Your task to perform on an android device: open app "DoorDash - Food Delivery" (install if not already installed) Image 0: 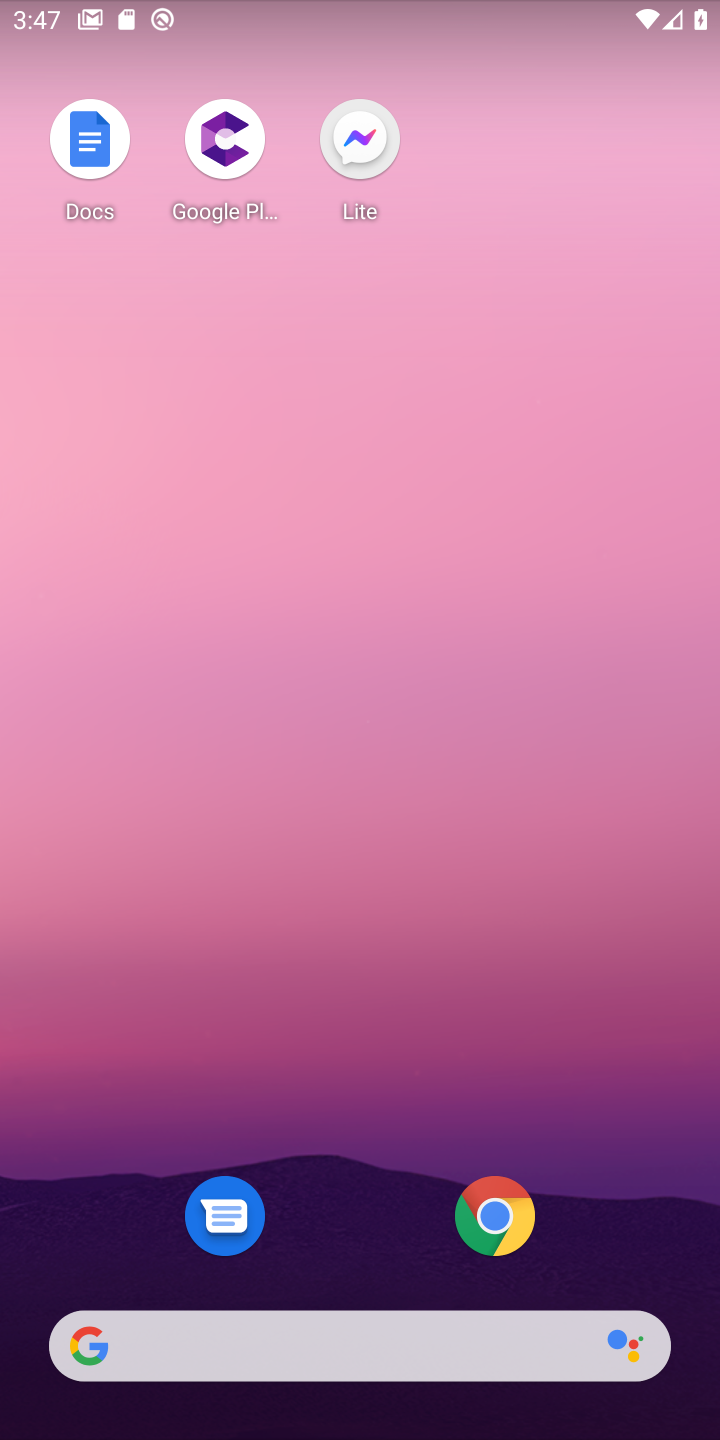
Step 0: drag from (356, 1238) to (282, 82)
Your task to perform on an android device: open app "DoorDash - Food Delivery" (install if not already installed) Image 1: 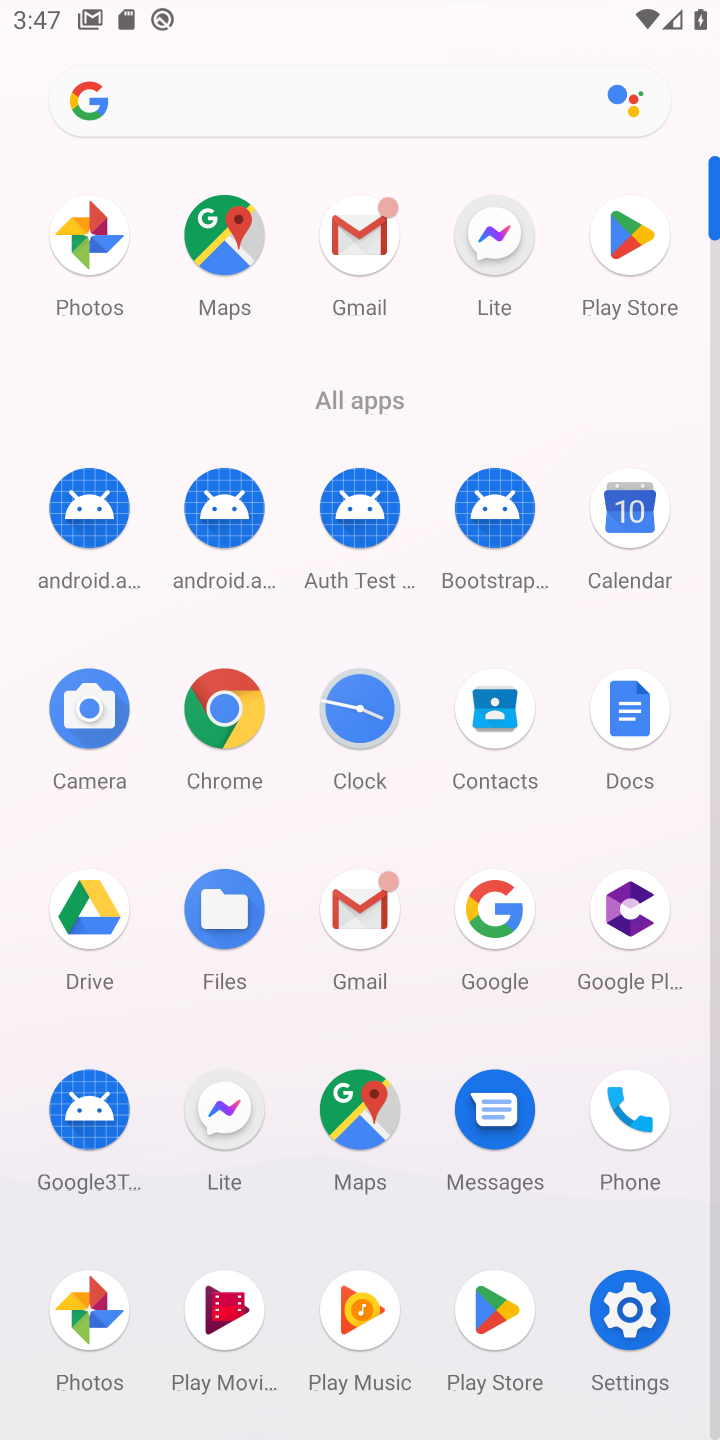
Step 1: click (487, 1318)
Your task to perform on an android device: open app "DoorDash - Food Delivery" (install if not already installed) Image 2: 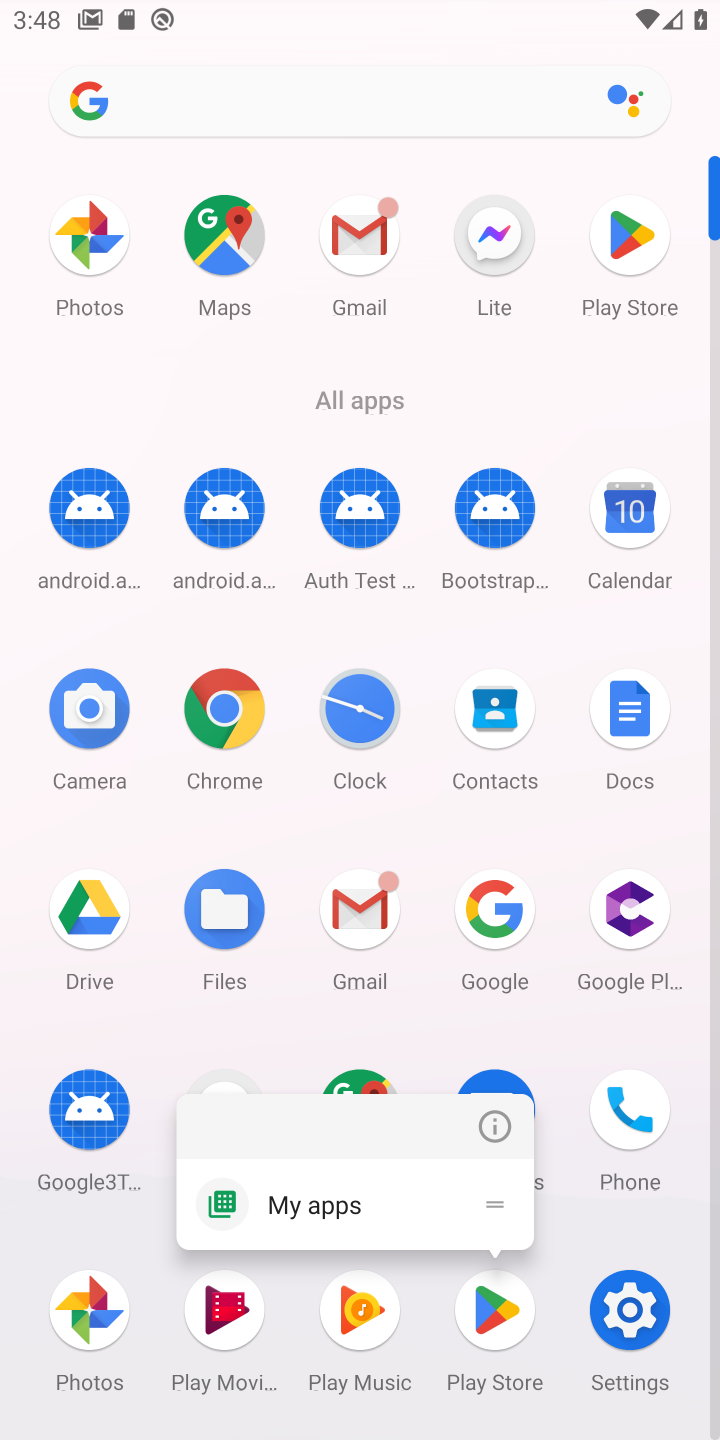
Step 2: click (629, 229)
Your task to perform on an android device: open app "DoorDash - Food Delivery" (install if not already installed) Image 3: 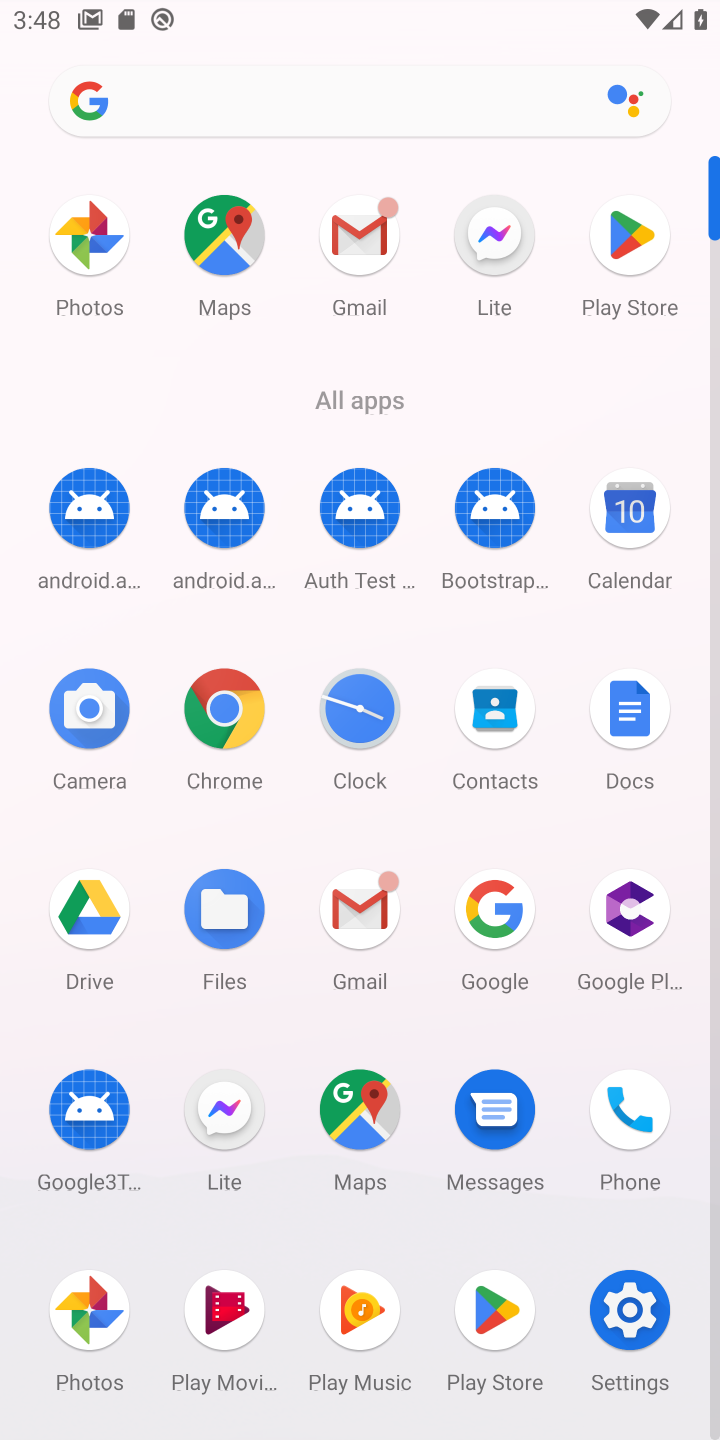
Step 3: click (639, 279)
Your task to perform on an android device: open app "DoorDash - Food Delivery" (install if not already installed) Image 4: 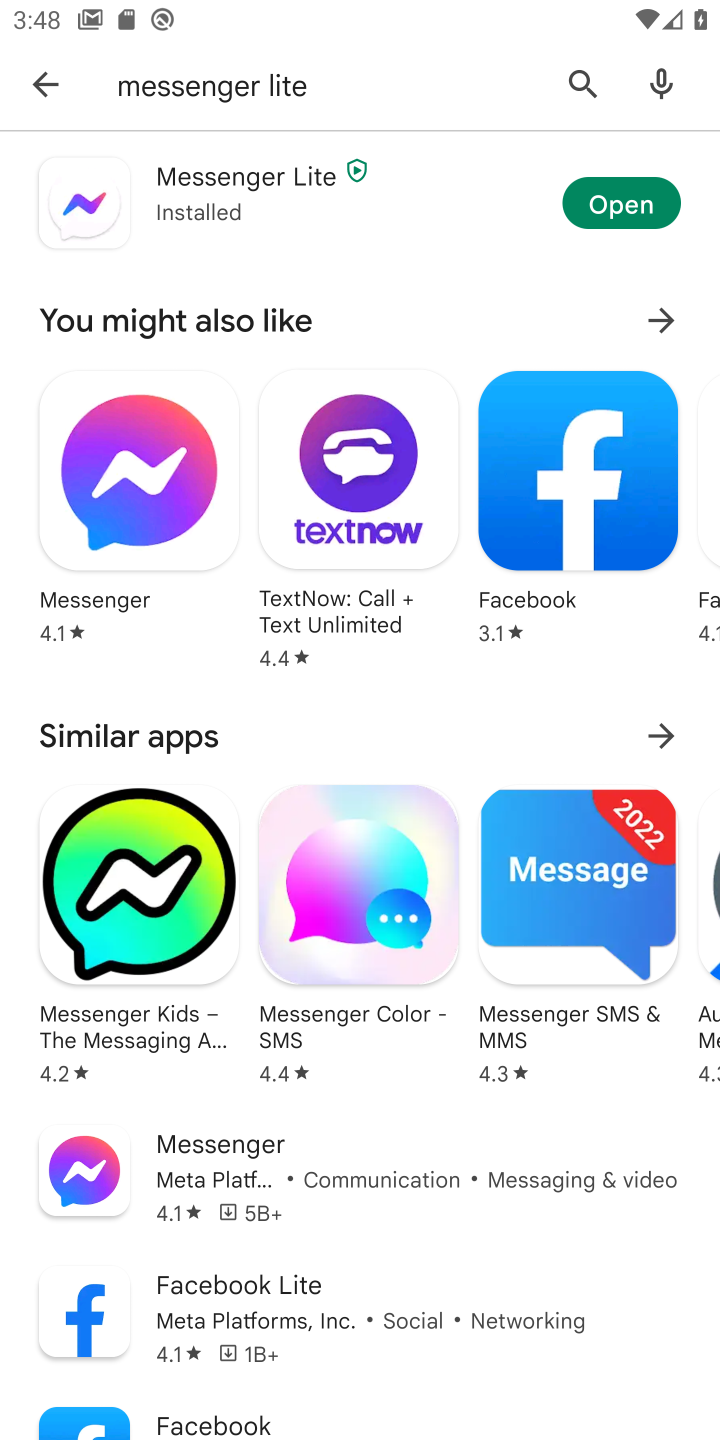
Step 4: click (37, 86)
Your task to perform on an android device: open app "DoorDash - Food Delivery" (install if not already installed) Image 5: 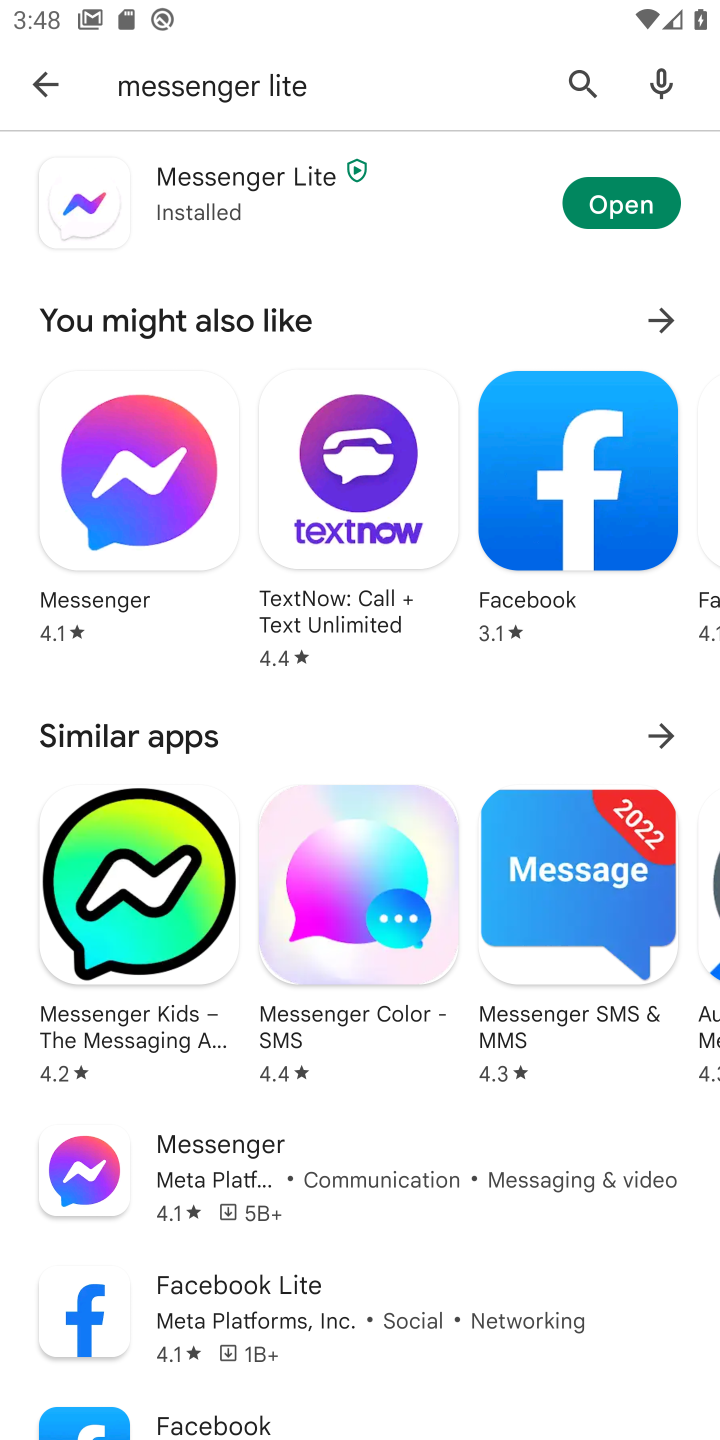
Step 5: click (40, 75)
Your task to perform on an android device: open app "DoorDash - Food Delivery" (install if not already installed) Image 6: 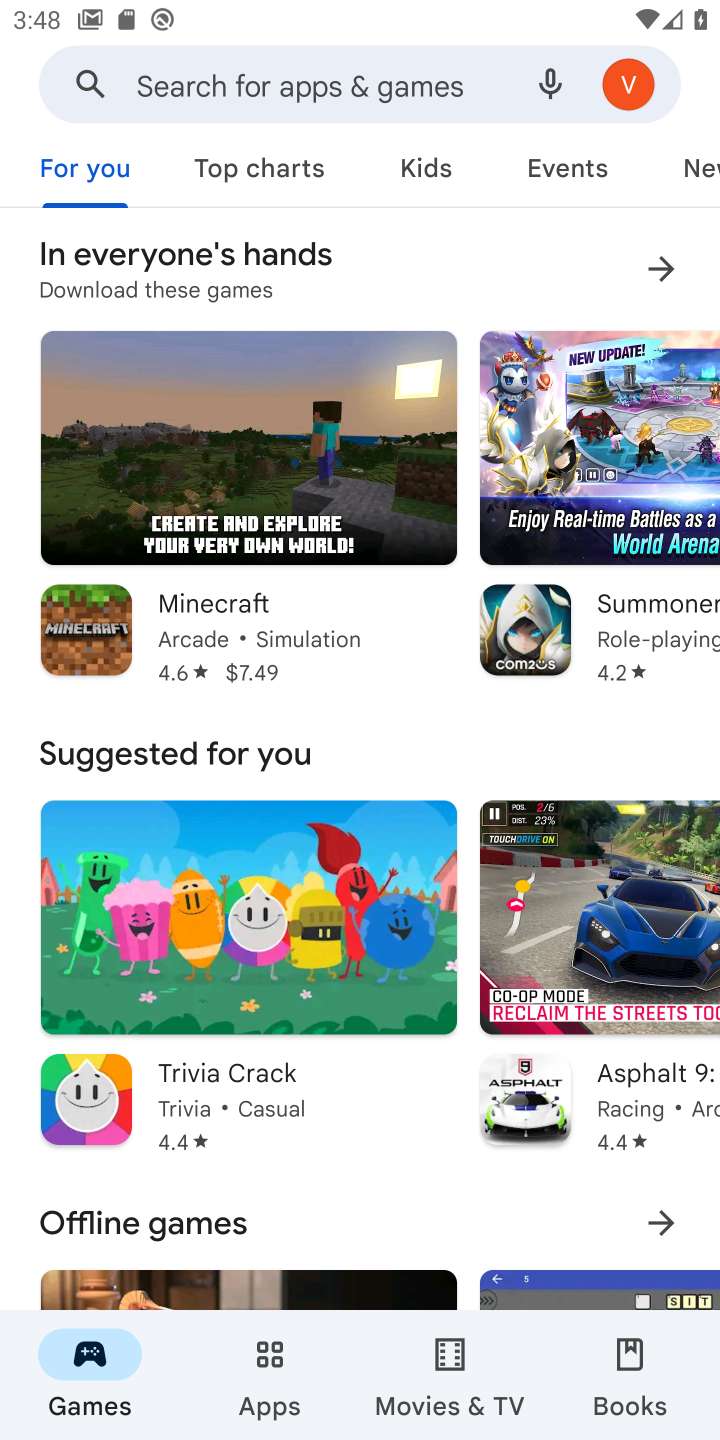
Step 6: click (300, 89)
Your task to perform on an android device: open app "DoorDash - Food Delivery" (install if not already installed) Image 7: 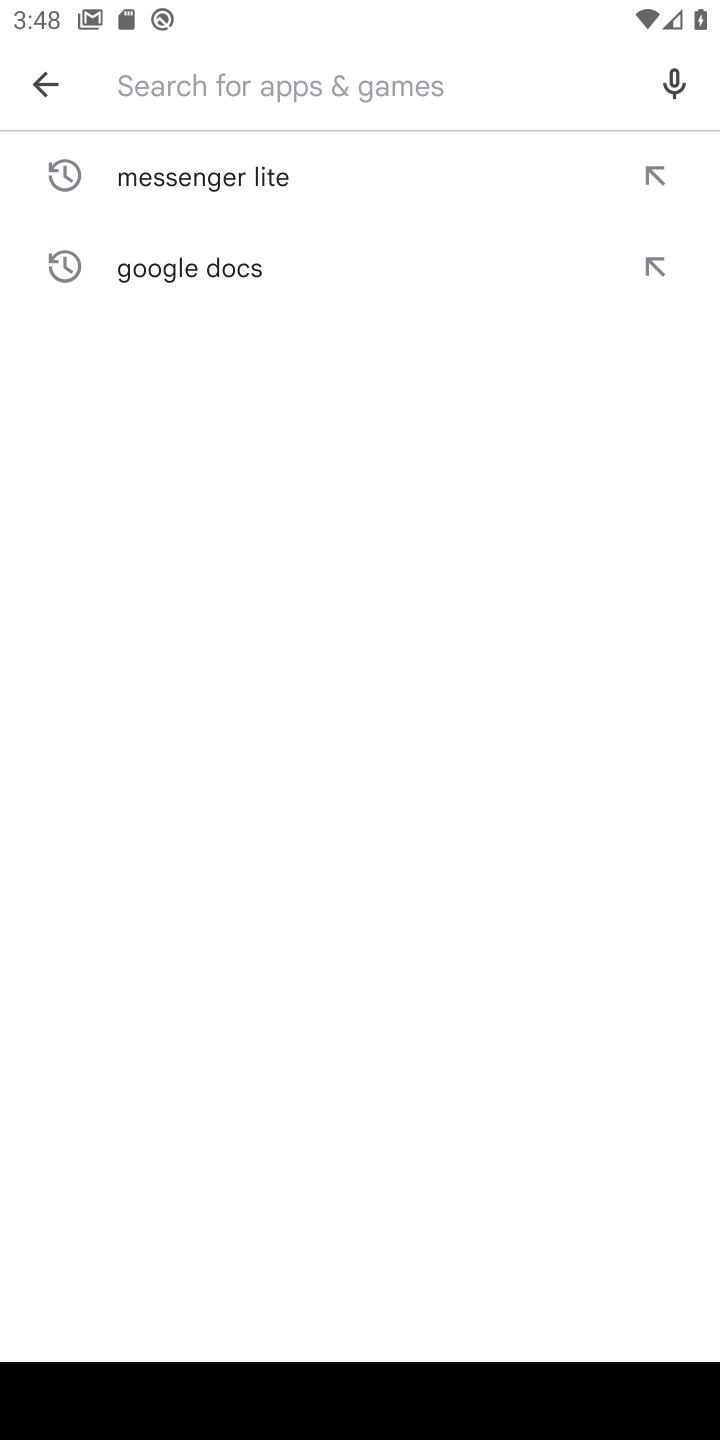
Step 7: type "DoorDash - Food Delivery"
Your task to perform on an android device: open app "DoorDash - Food Delivery" (install if not already installed) Image 8: 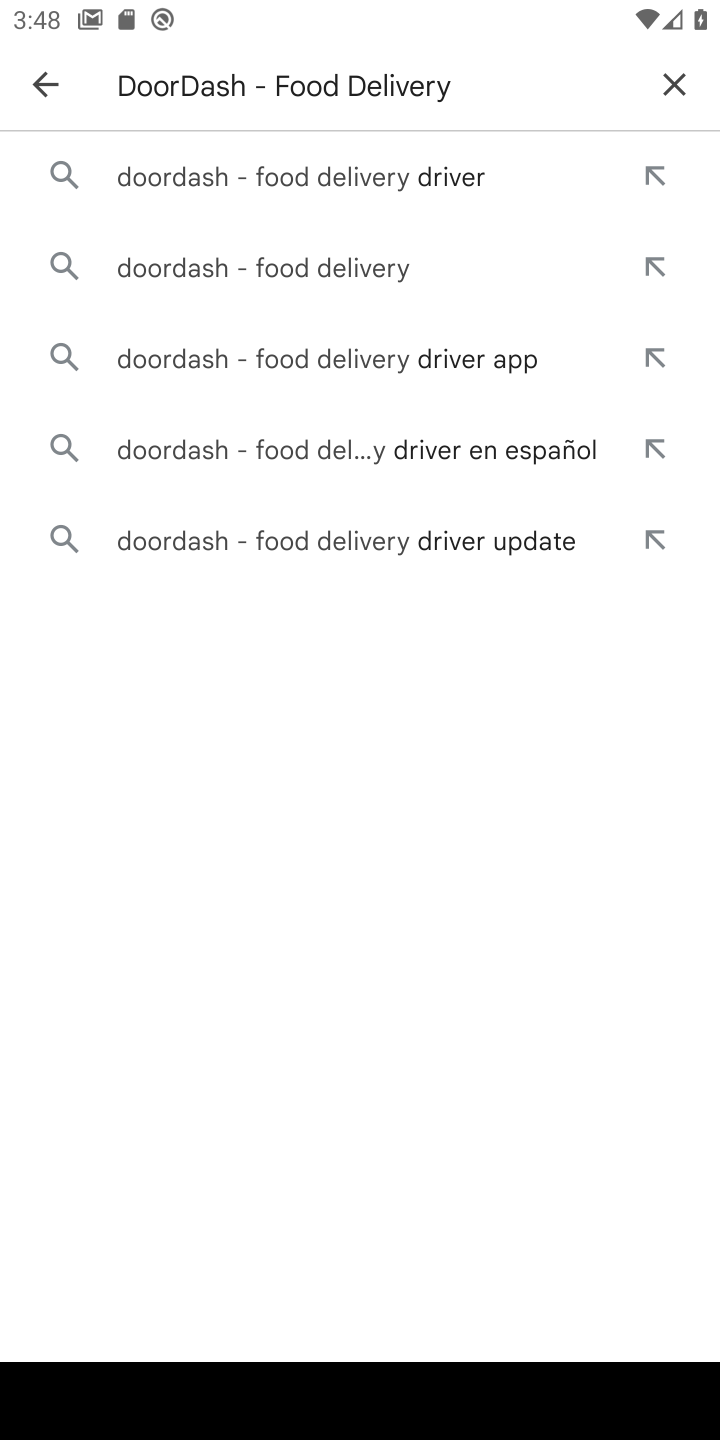
Step 8: click (272, 167)
Your task to perform on an android device: open app "DoorDash - Food Delivery" (install if not already installed) Image 9: 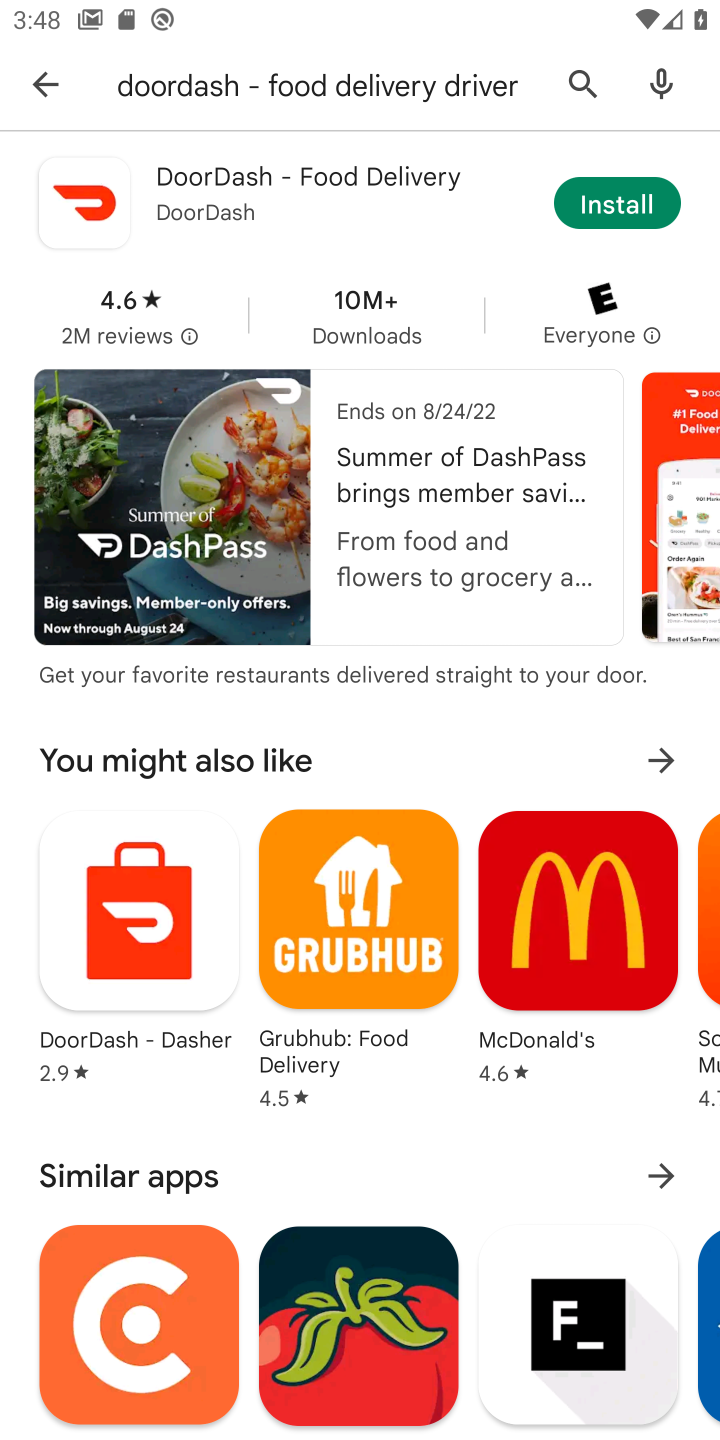
Step 9: click (617, 179)
Your task to perform on an android device: open app "DoorDash - Food Delivery" (install if not already installed) Image 10: 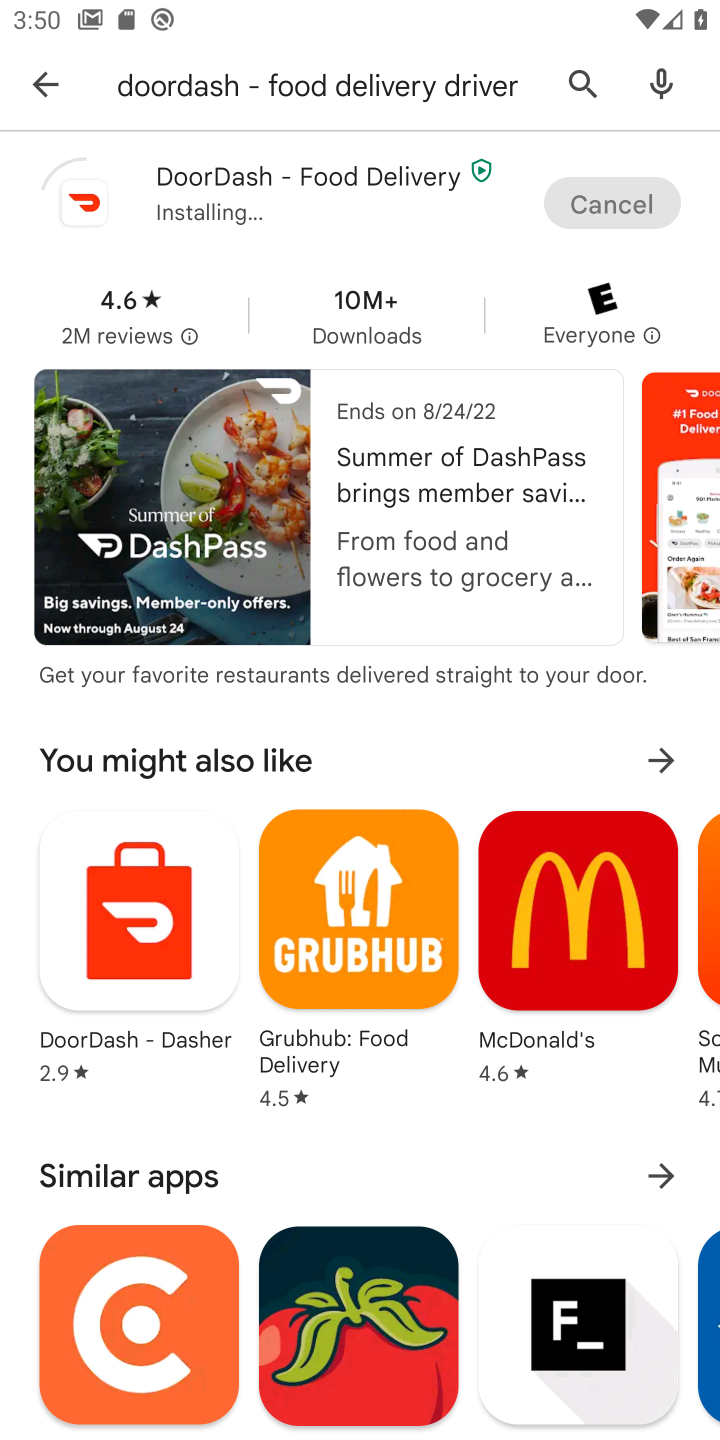
Step 10: click (392, 209)
Your task to perform on an android device: open app "DoorDash - Food Delivery" (install if not already installed) Image 11: 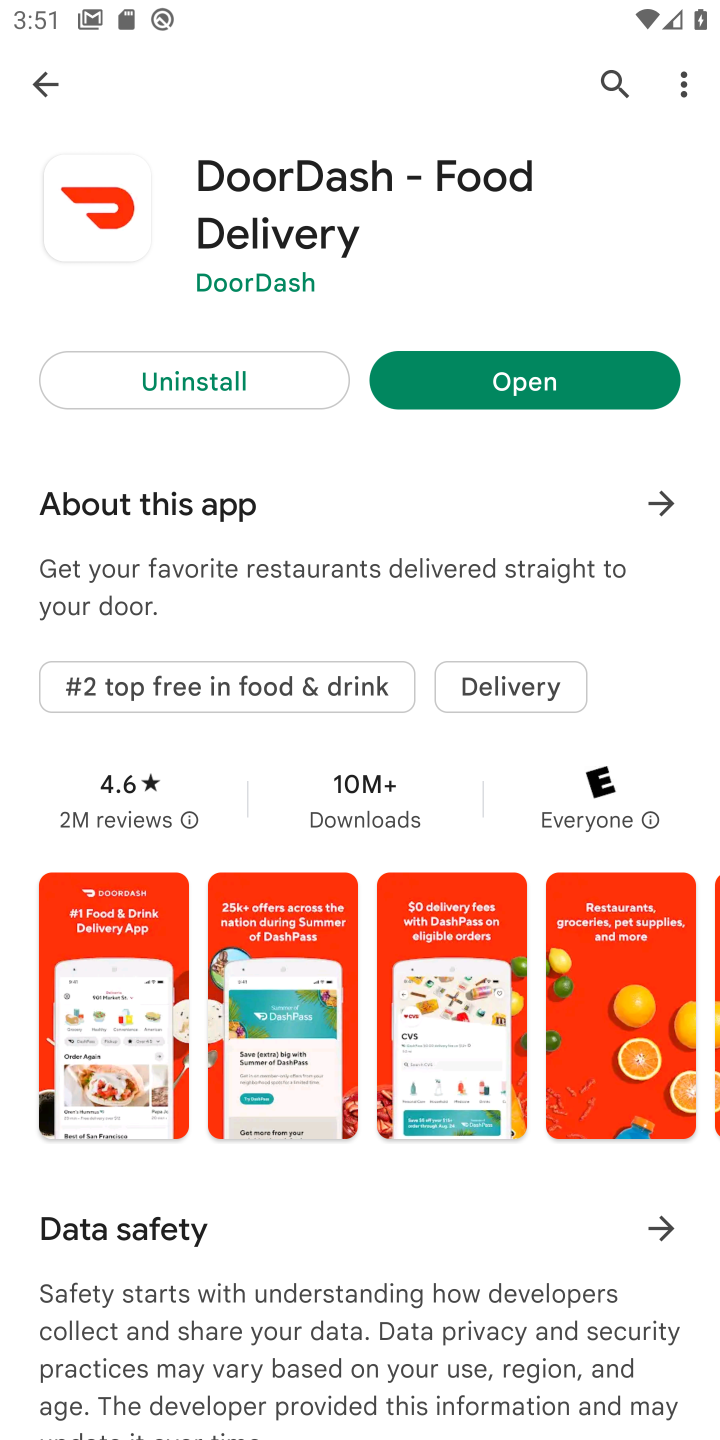
Step 11: click (558, 388)
Your task to perform on an android device: open app "DoorDash - Food Delivery" (install if not already installed) Image 12: 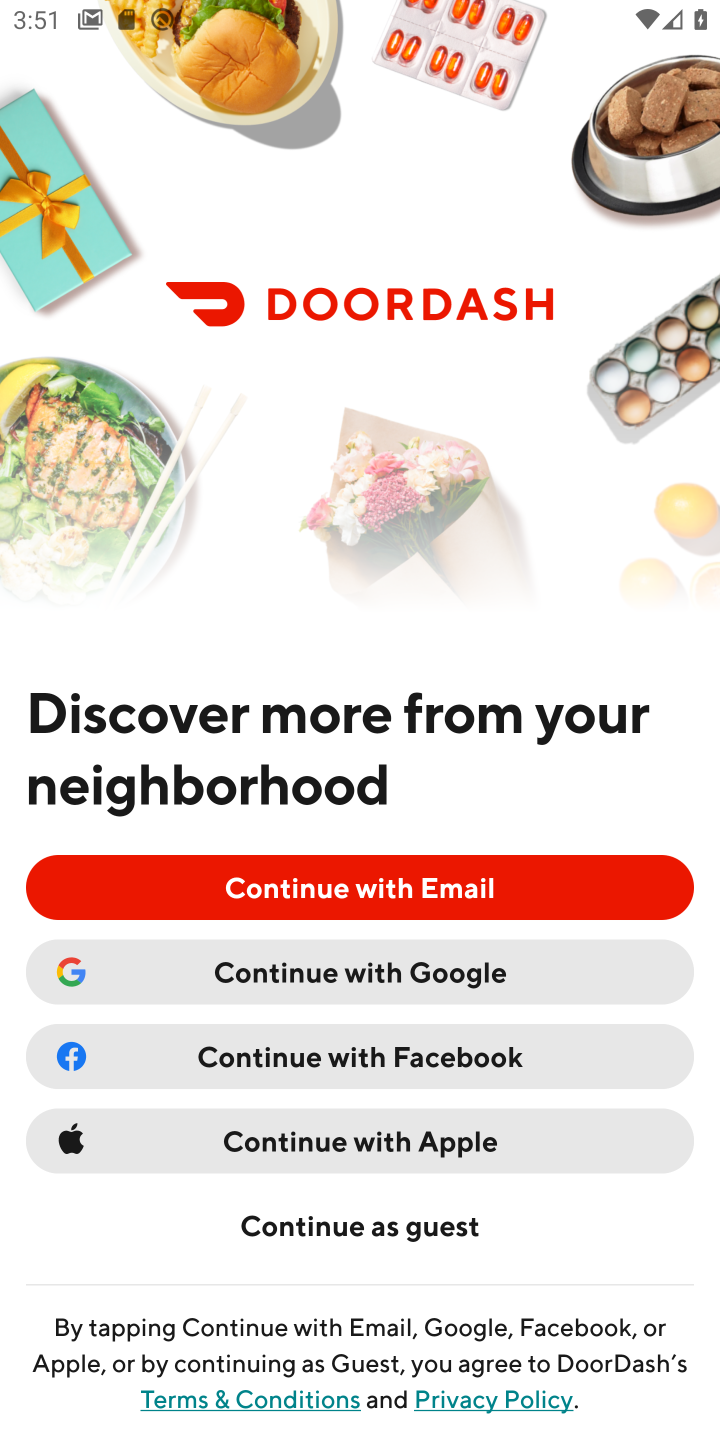
Step 12: task complete